Your task to perform on an android device: change the clock display to show seconds Image 0: 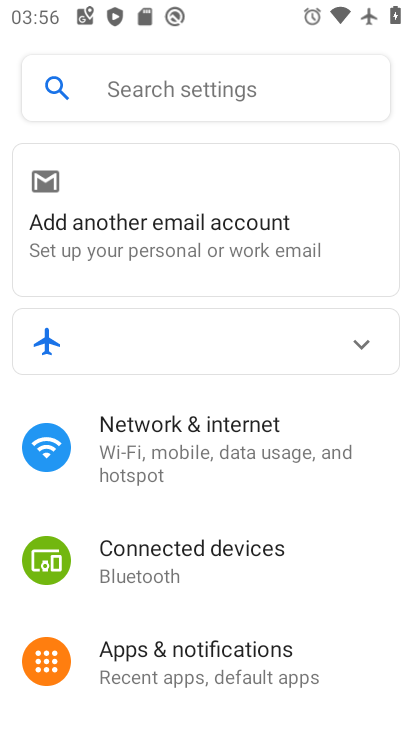
Step 0: press home button
Your task to perform on an android device: change the clock display to show seconds Image 1: 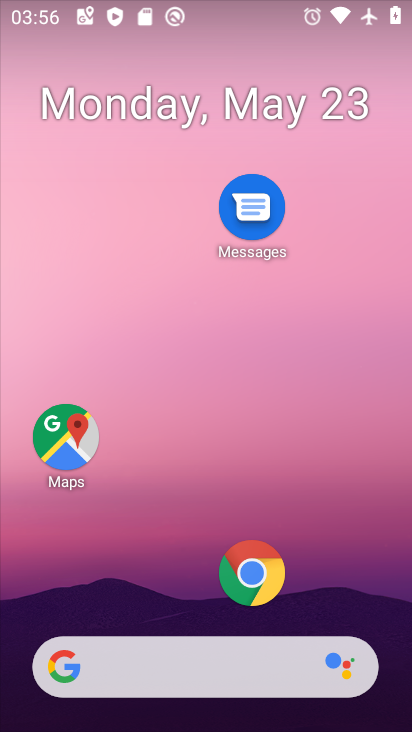
Step 1: drag from (310, 652) to (373, 56)
Your task to perform on an android device: change the clock display to show seconds Image 2: 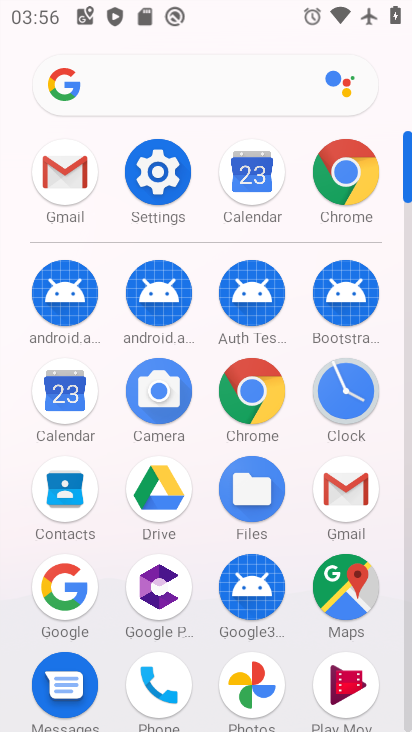
Step 2: click (161, 165)
Your task to perform on an android device: change the clock display to show seconds Image 3: 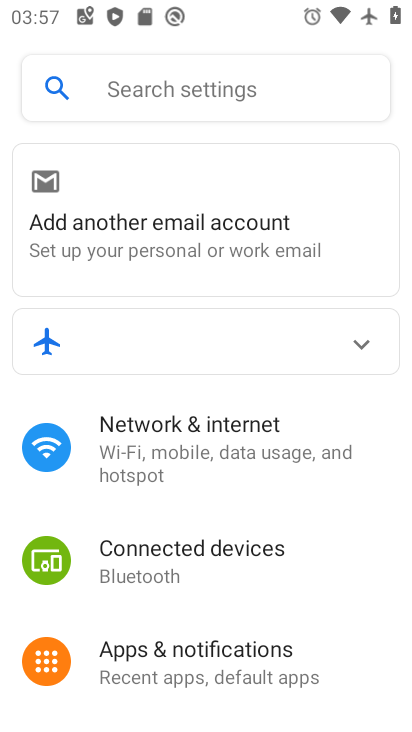
Step 3: drag from (226, 650) to (271, 398)
Your task to perform on an android device: change the clock display to show seconds Image 4: 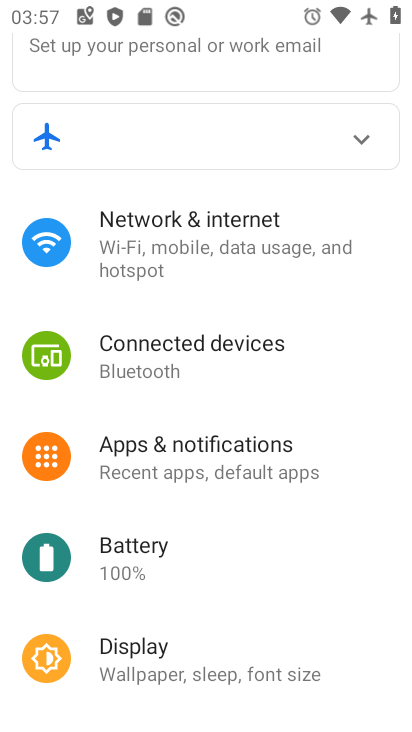
Step 4: press home button
Your task to perform on an android device: change the clock display to show seconds Image 5: 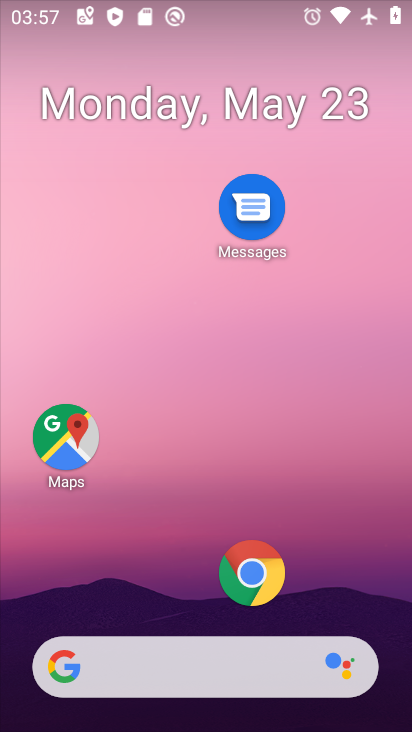
Step 5: drag from (296, 655) to (405, 17)
Your task to perform on an android device: change the clock display to show seconds Image 6: 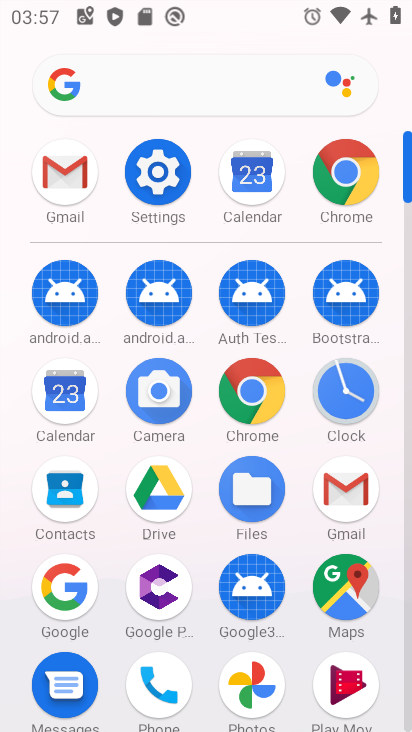
Step 6: click (367, 394)
Your task to perform on an android device: change the clock display to show seconds Image 7: 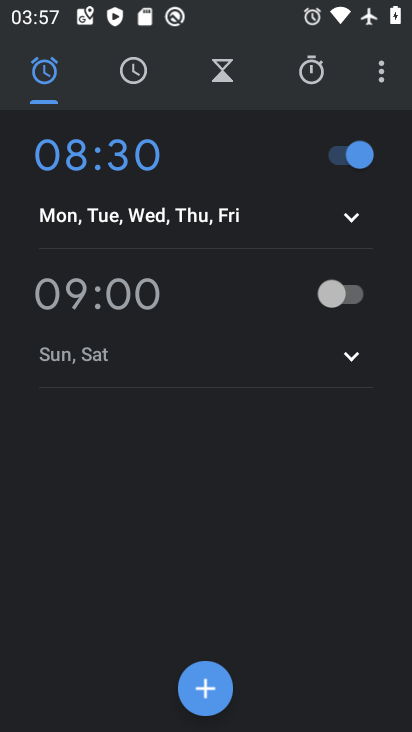
Step 7: click (376, 69)
Your task to perform on an android device: change the clock display to show seconds Image 8: 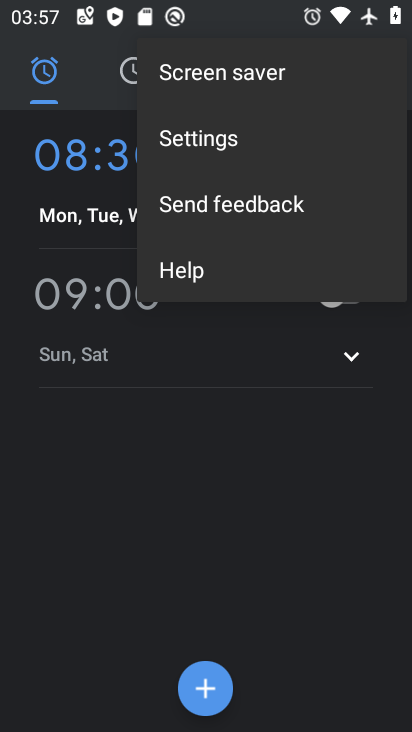
Step 8: click (299, 148)
Your task to perform on an android device: change the clock display to show seconds Image 9: 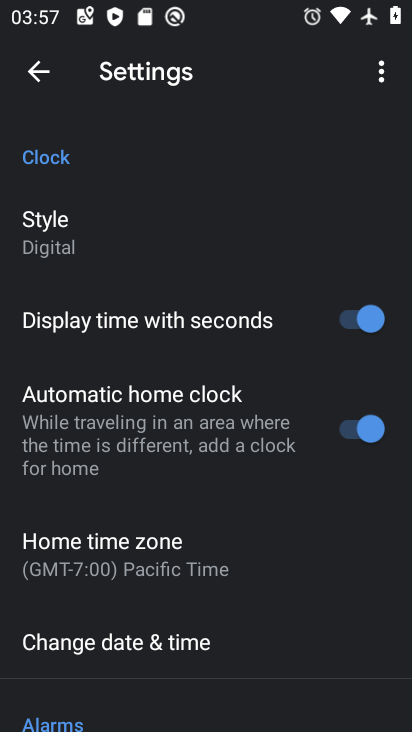
Step 9: task complete